Your task to perform on an android device: turn on bluetooth scan Image 0: 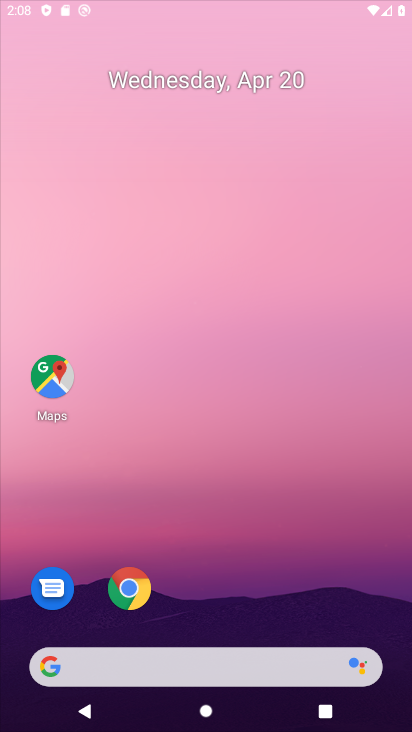
Step 0: drag from (228, 544) to (273, 48)
Your task to perform on an android device: turn on bluetooth scan Image 1: 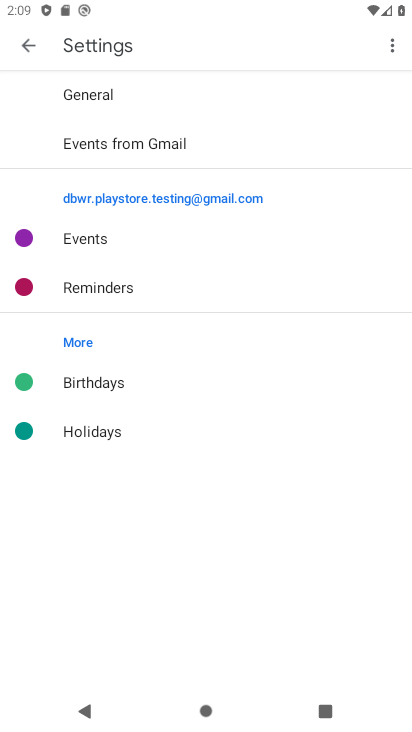
Step 1: press home button
Your task to perform on an android device: turn on bluetooth scan Image 2: 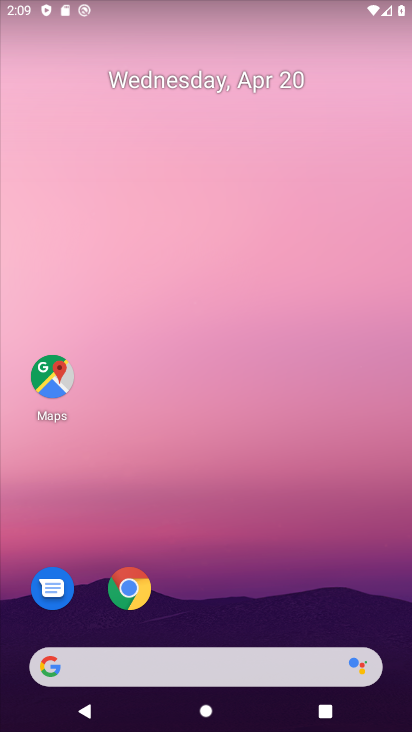
Step 2: drag from (220, 600) to (273, 54)
Your task to perform on an android device: turn on bluetooth scan Image 3: 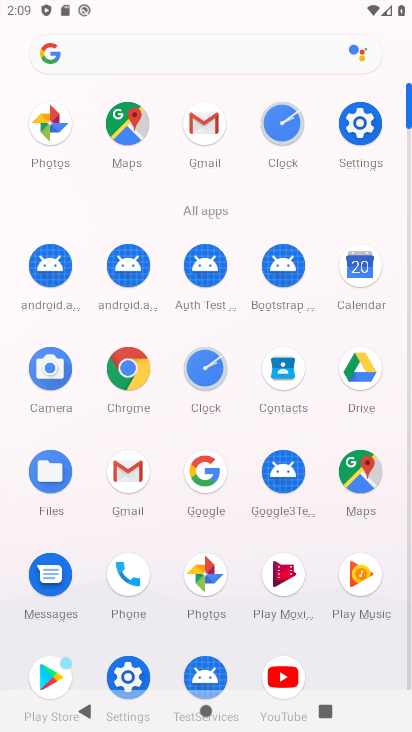
Step 3: click (367, 142)
Your task to perform on an android device: turn on bluetooth scan Image 4: 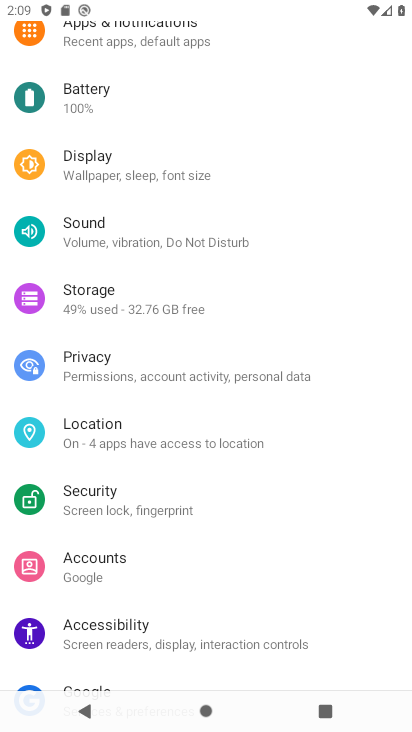
Step 4: click (125, 438)
Your task to perform on an android device: turn on bluetooth scan Image 5: 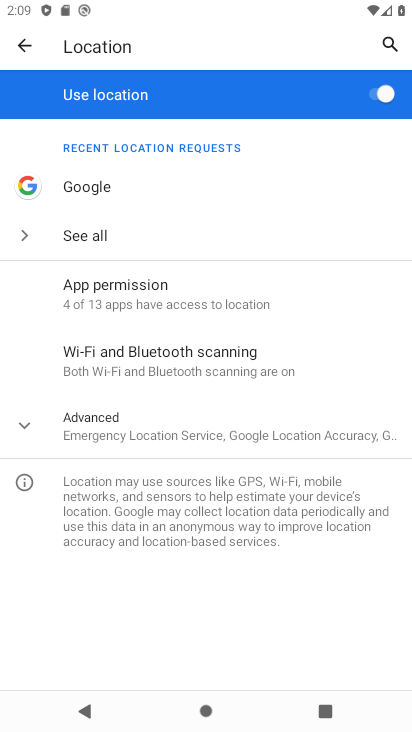
Step 5: click (236, 361)
Your task to perform on an android device: turn on bluetooth scan Image 6: 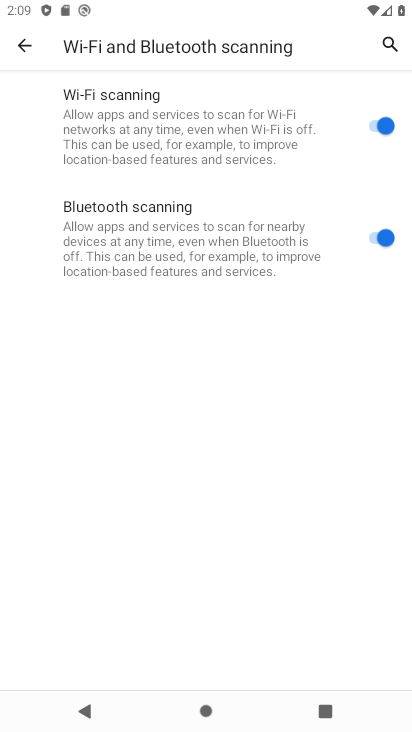
Step 6: task complete